Your task to perform on an android device: Open internet settings Image 0: 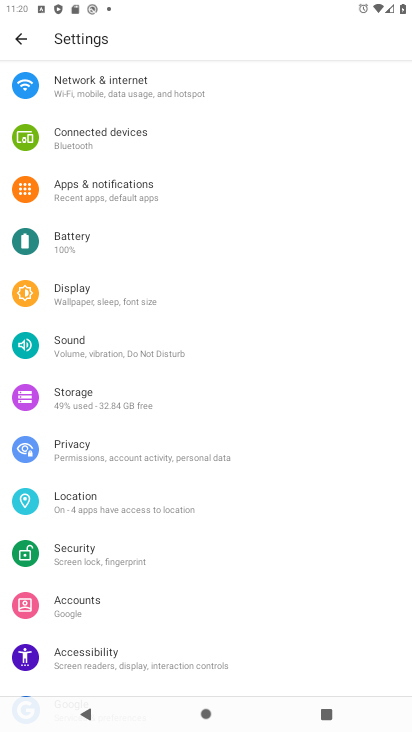
Step 0: click (112, 84)
Your task to perform on an android device: Open internet settings Image 1: 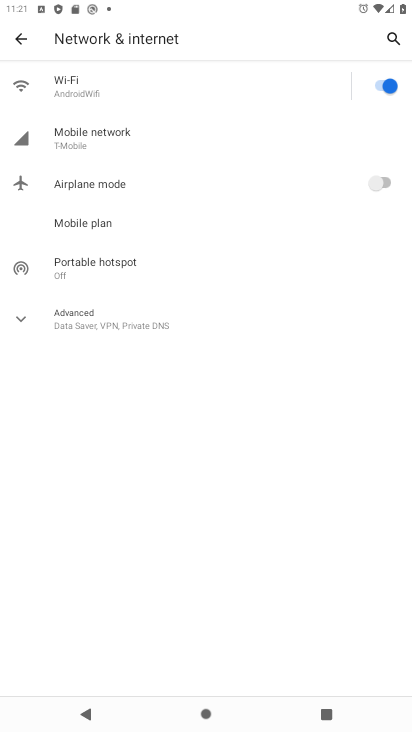
Step 1: click (84, 135)
Your task to perform on an android device: Open internet settings Image 2: 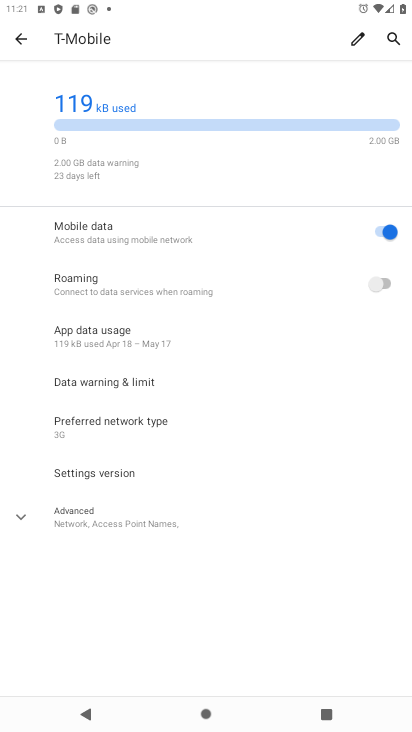
Step 2: task complete